Your task to perform on an android device: Open the phone app and click the voicemail tab. Image 0: 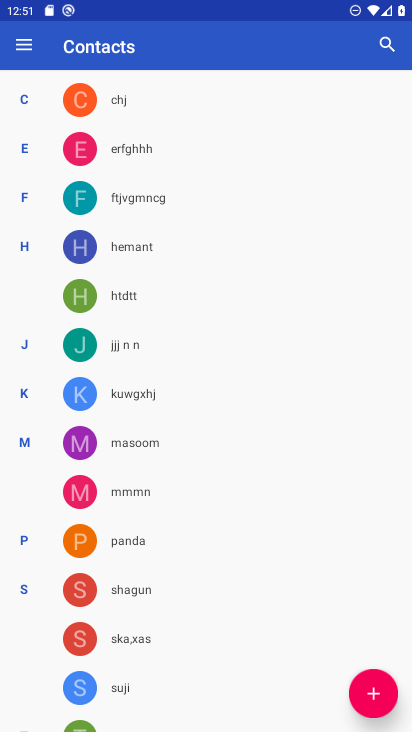
Step 0: press home button
Your task to perform on an android device: Open the phone app and click the voicemail tab. Image 1: 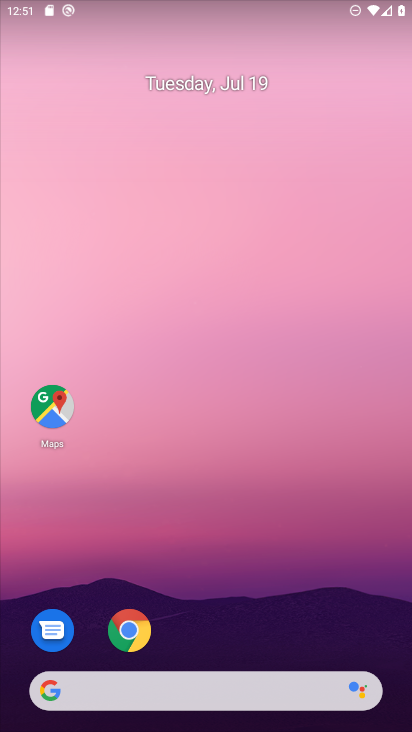
Step 1: drag from (196, 697) to (349, 117)
Your task to perform on an android device: Open the phone app and click the voicemail tab. Image 2: 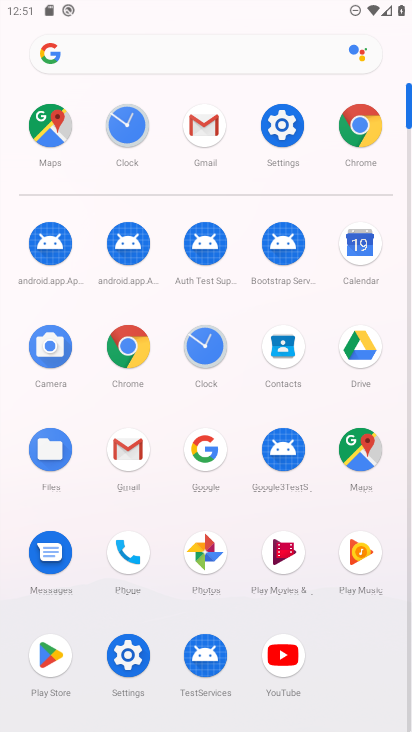
Step 2: click (128, 560)
Your task to perform on an android device: Open the phone app and click the voicemail tab. Image 3: 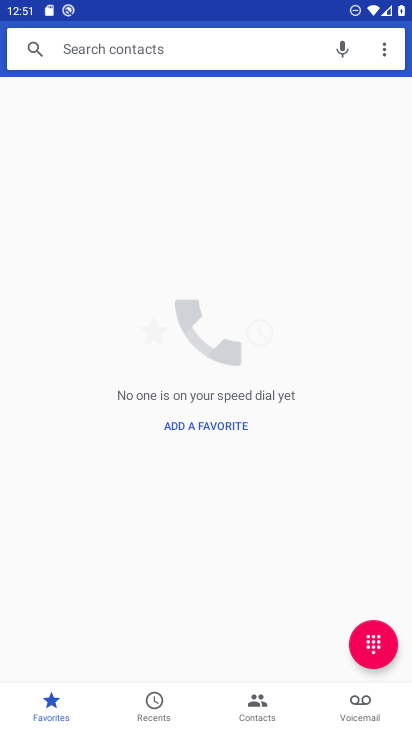
Step 3: click (364, 706)
Your task to perform on an android device: Open the phone app and click the voicemail tab. Image 4: 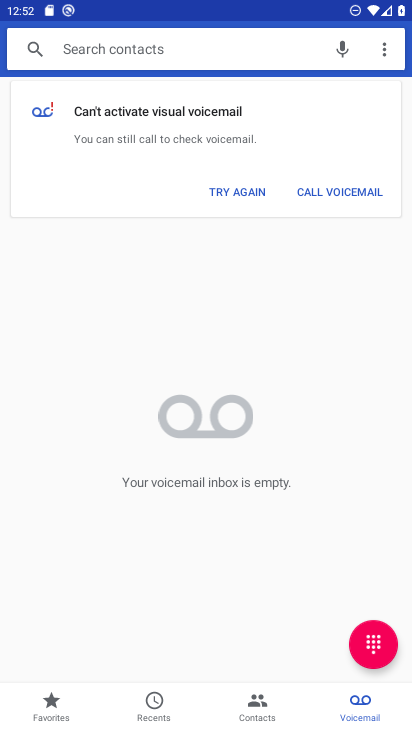
Step 4: task complete